Your task to perform on an android device: star an email in the gmail app Image 0: 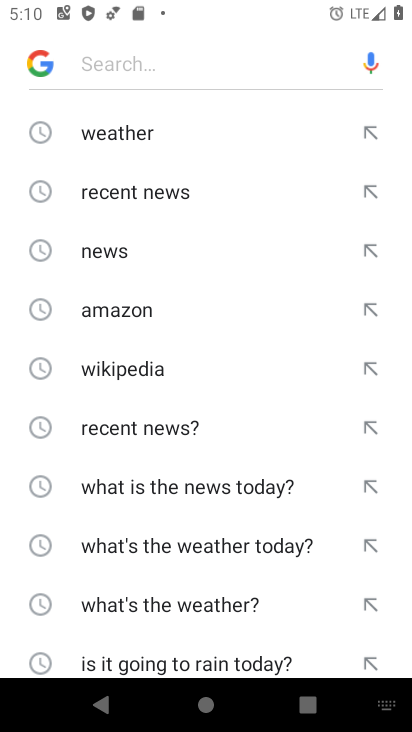
Step 0: drag from (228, 30) to (136, 13)
Your task to perform on an android device: star an email in the gmail app Image 1: 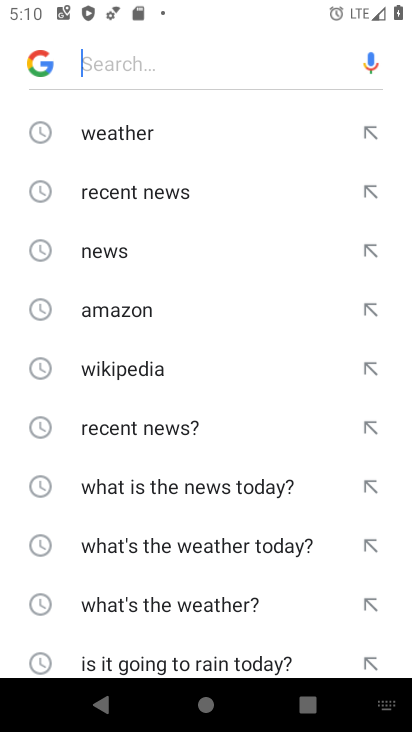
Step 1: press home button
Your task to perform on an android device: star an email in the gmail app Image 2: 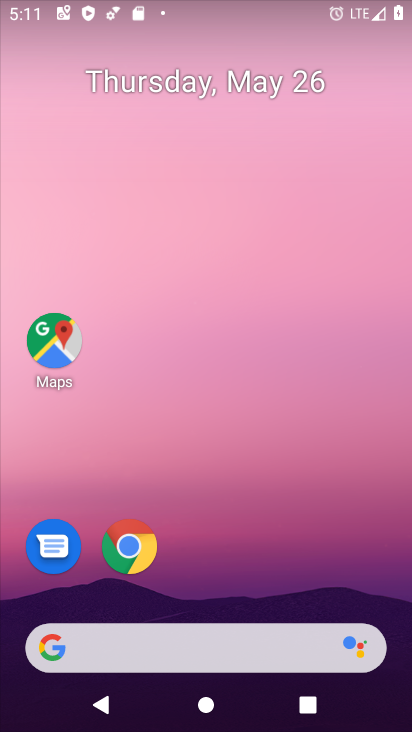
Step 2: drag from (215, 518) to (301, 132)
Your task to perform on an android device: star an email in the gmail app Image 3: 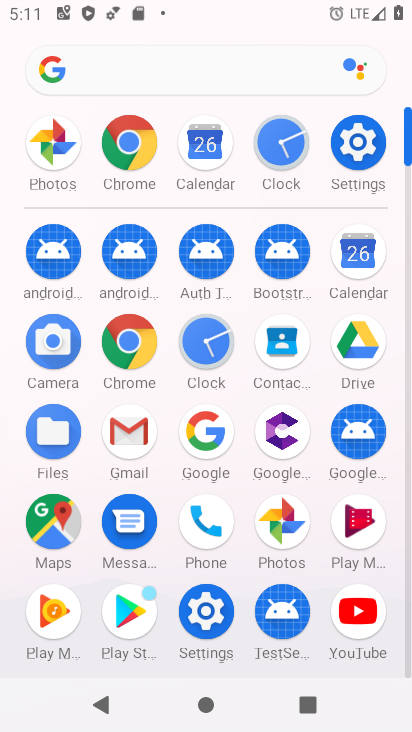
Step 3: click (131, 431)
Your task to perform on an android device: star an email in the gmail app Image 4: 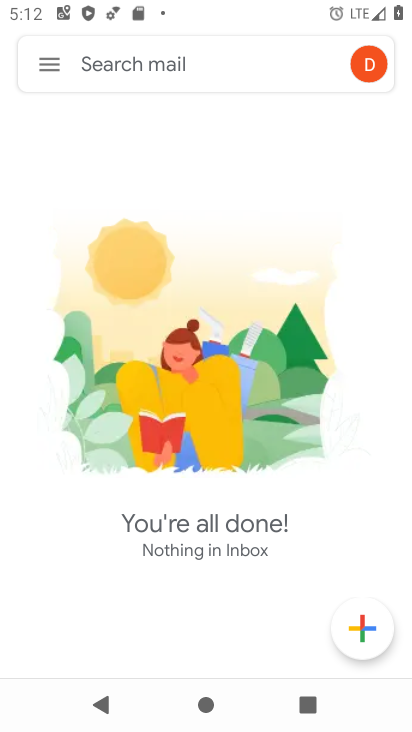
Step 4: click (50, 57)
Your task to perform on an android device: star an email in the gmail app Image 5: 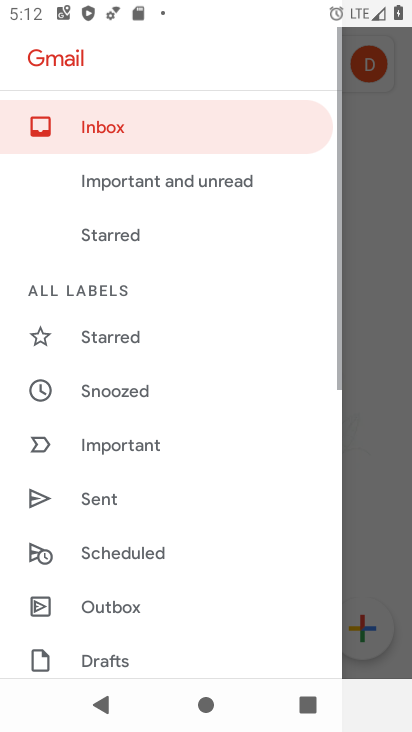
Step 5: drag from (107, 613) to (155, 175)
Your task to perform on an android device: star an email in the gmail app Image 6: 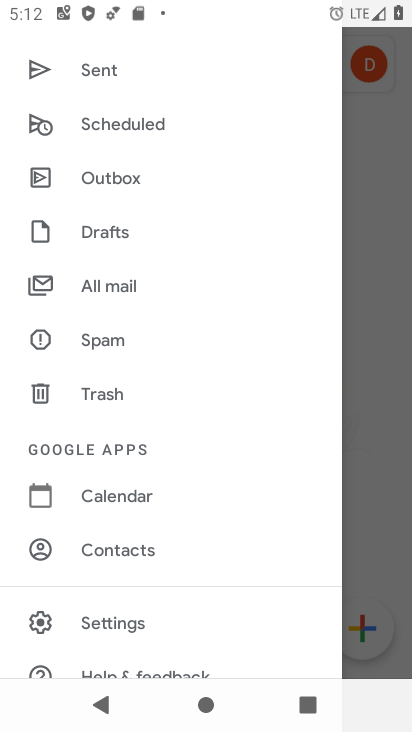
Step 6: click (108, 279)
Your task to perform on an android device: star an email in the gmail app Image 7: 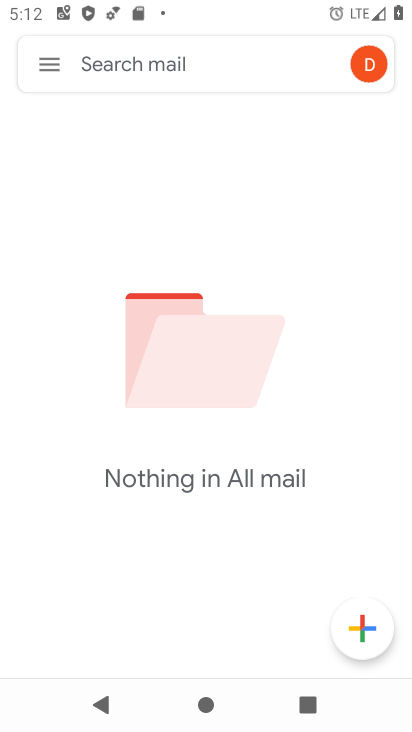
Step 7: task complete